Your task to perform on an android device: Open calendar and show me the third week of next month Image 0: 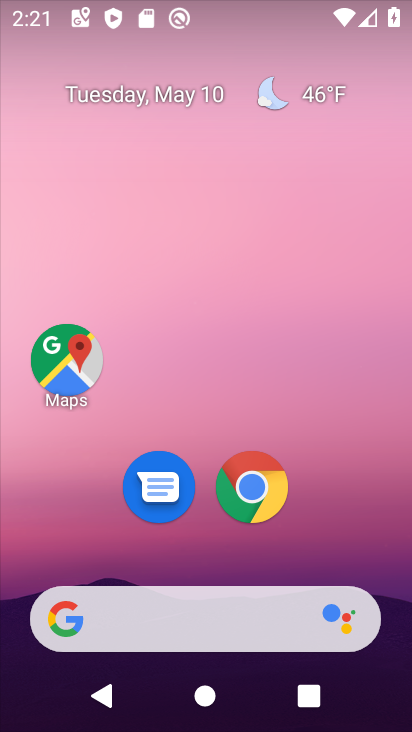
Step 0: drag from (354, 533) to (203, 0)
Your task to perform on an android device: Open calendar and show me the third week of next month Image 1: 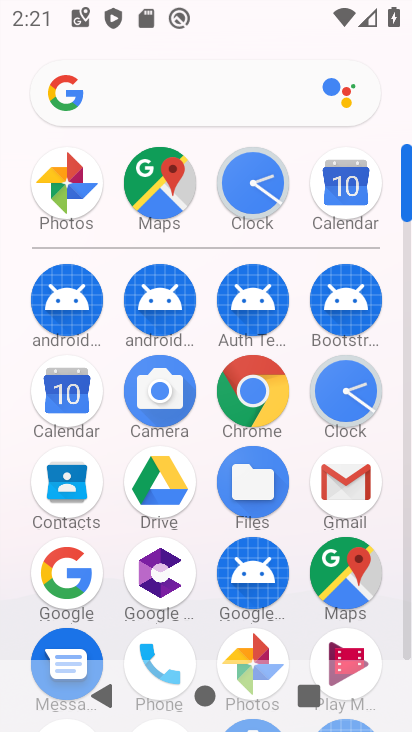
Step 1: click (71, 388)
Your task to perform on an android device: Open calendar and show me the third week of next month Image 2: 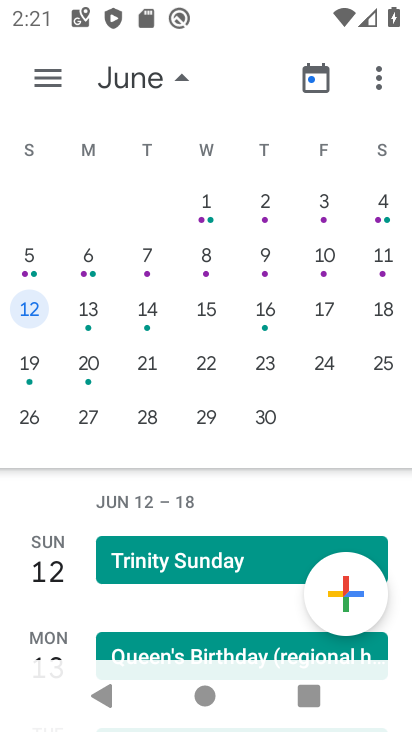
Step 2: click (100, 369)
Your task to perform on an android device: Open calendar and show me the third week of next month Image 3: 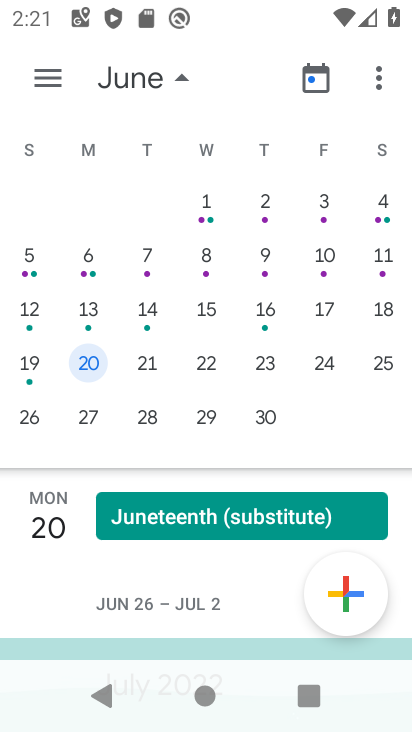
Step 3: click (36, 374)
Your task to perform on an android device: Open calendar and show me the third week of next month Image 4: 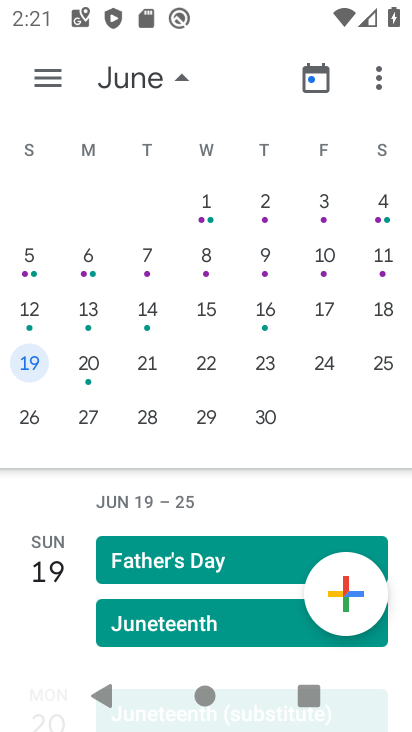
Step 4: task complete